Your task to perform on an android device: Open the stopwatch Image 0: 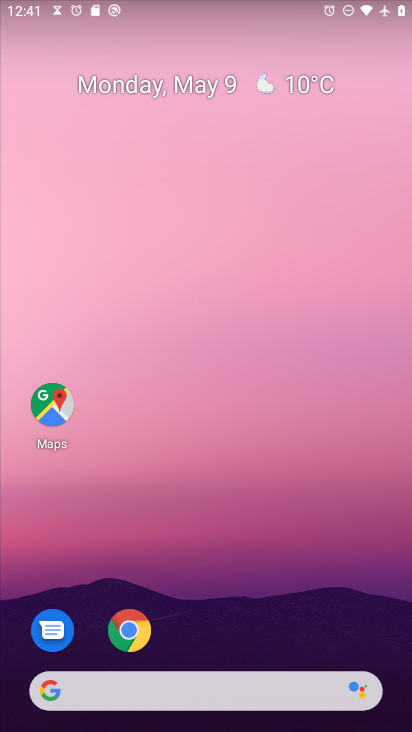
Step 0: drag from (189, 701) to (304, 127)
Your task to perform on an android device: Open the stopwatch Image 1: 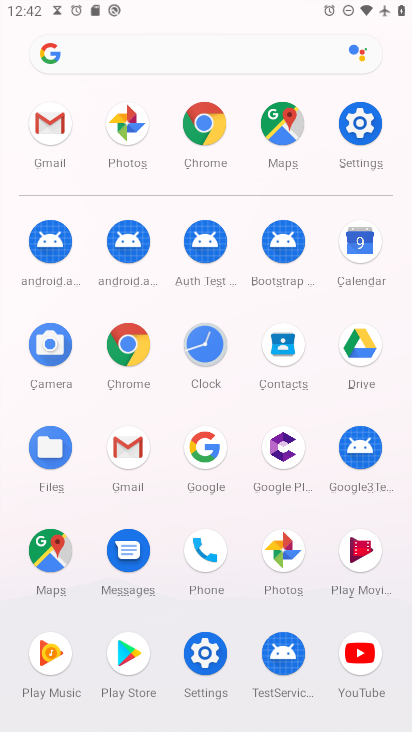
Step 1: click (212, 340)
Your task to perform on an android device: Open the stopwatch Image 2: 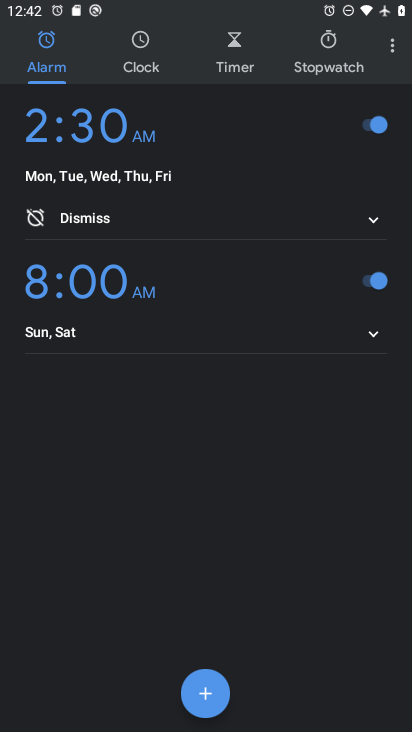
Step 2: click (322, 67)
Your task to perform on an android device: Open the stopwatch Image 3: 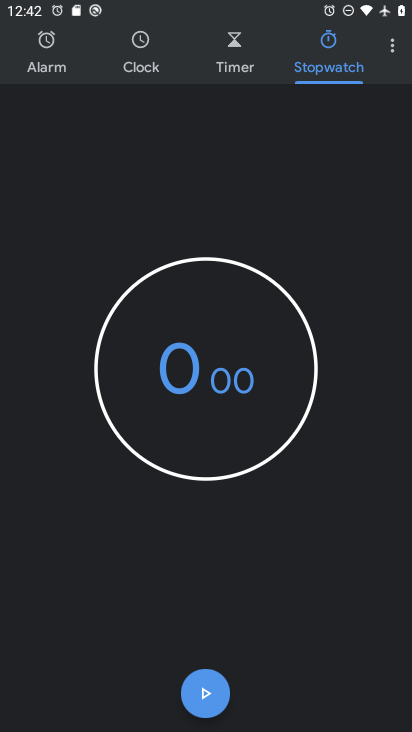
Step 3: task complete